Your task to perform on an android device: open app "Paramount+ | Peak Streaming" (install if not already installed) and enter user name: "fostered@yahoo.com" and password: "strong" Image 0: 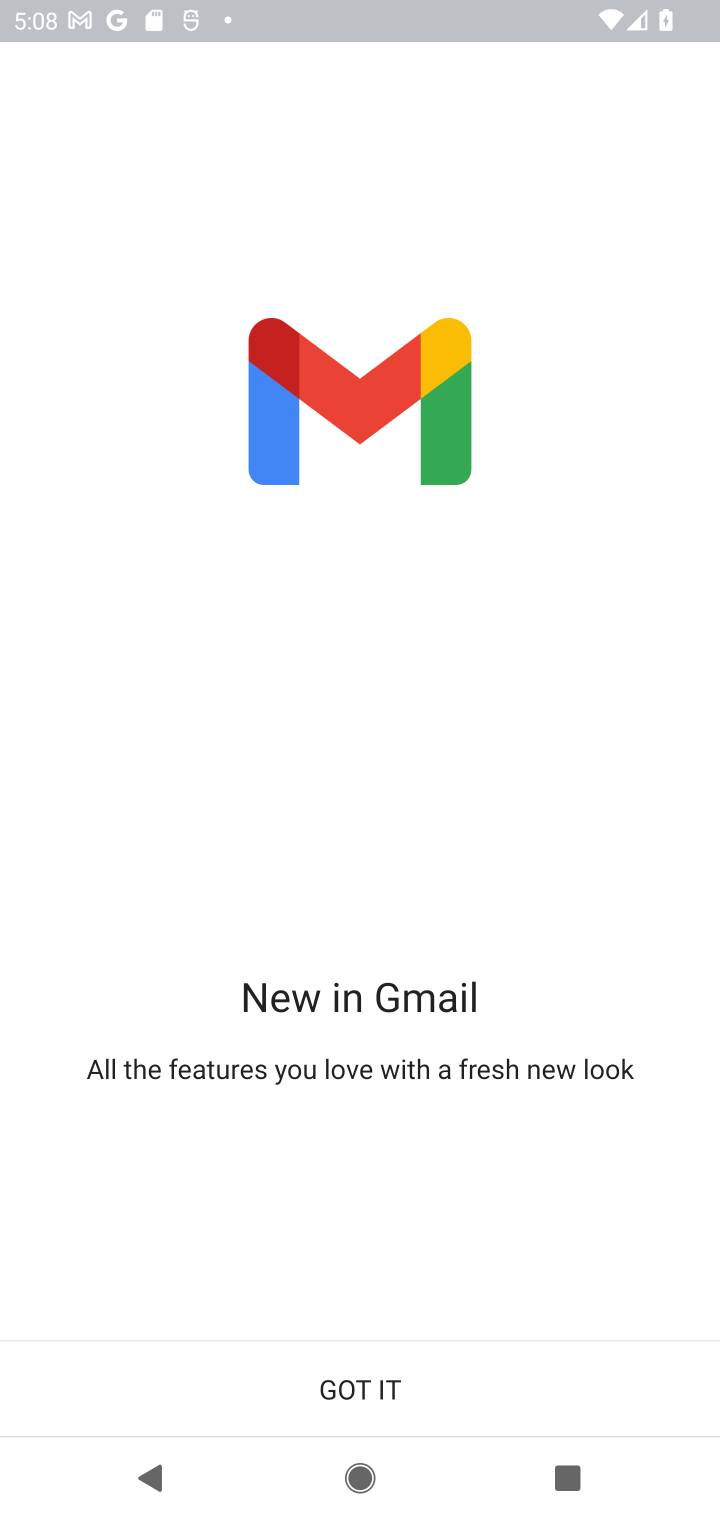
Step 0: press home button
Your task to perform on an android device: open app "Paramount+ | Peak Streaming" (install if not already installed) and enter user name: "fostered@yahoo.com" and password: "strong" Image 1: 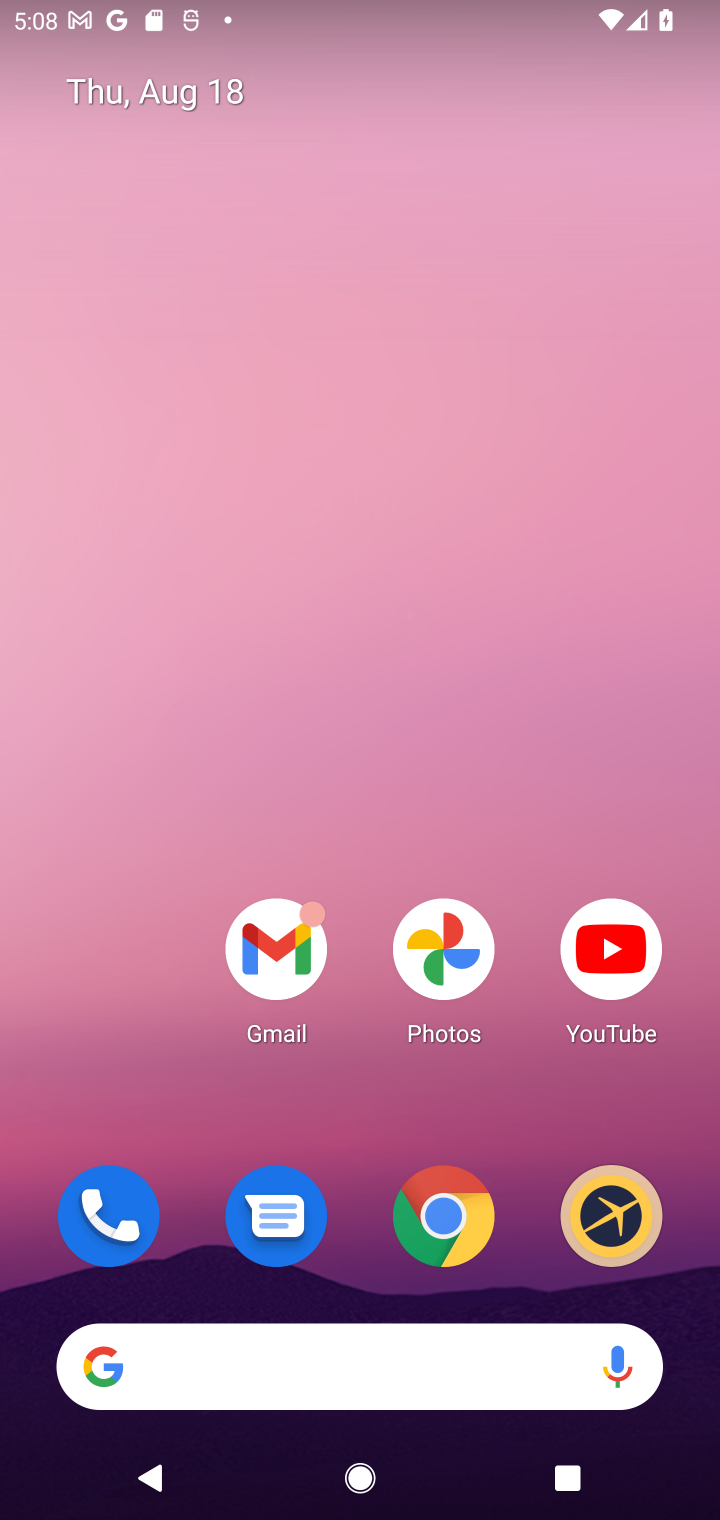
Step 1: drag from (542, 1279) to (505, 219)
Your task to perform on an android device: open app "Paramount+ | Peak Streaming" (install if not already installed) and enter user name: "fostered@yahoo.com" and password: "strong" Image 2: 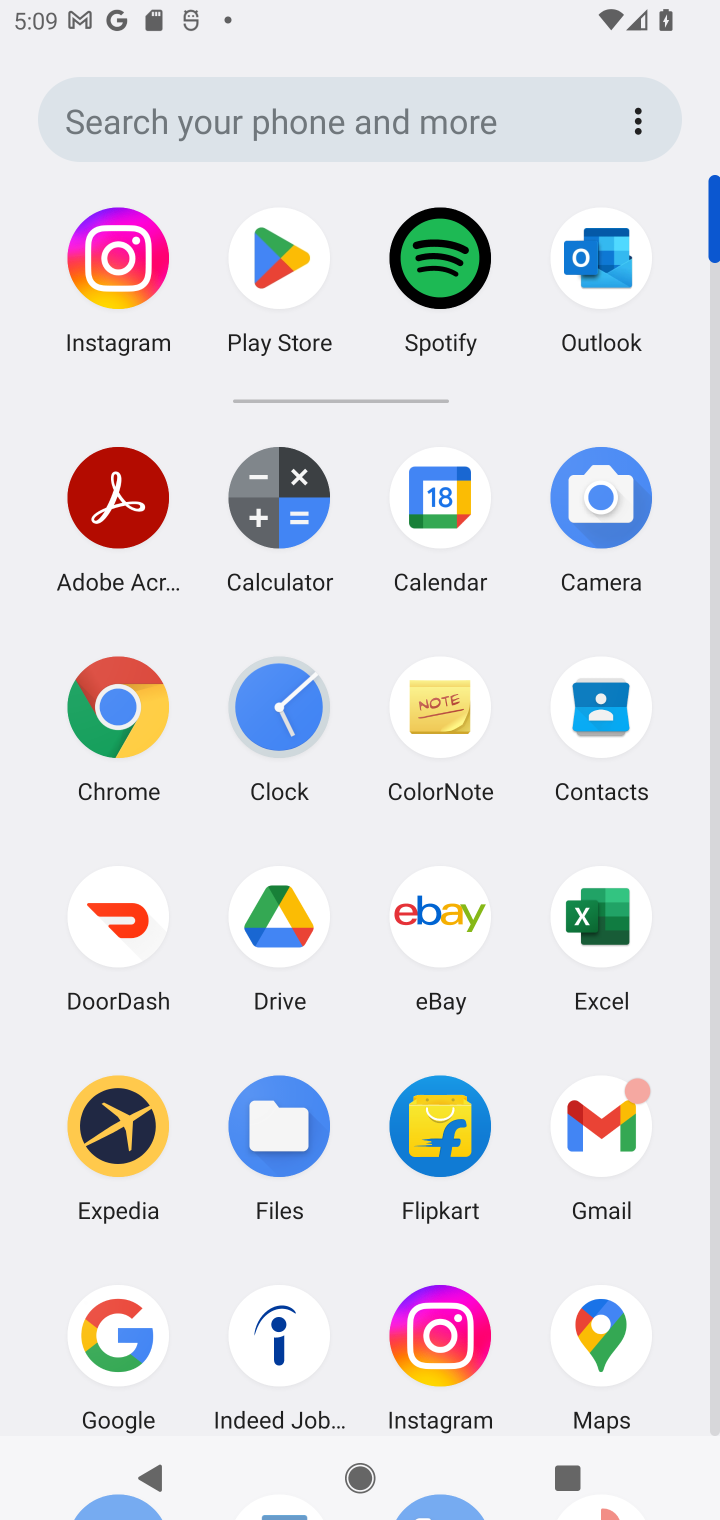
Step 2: drag from (698, 1394) to (686, 471)
Your task to perform on an android device: open app "Paramount+ | Peak Streaming" (install if not already installed) and enter user name: "fostered@yahoo.com" and password: "strong" Image 3: 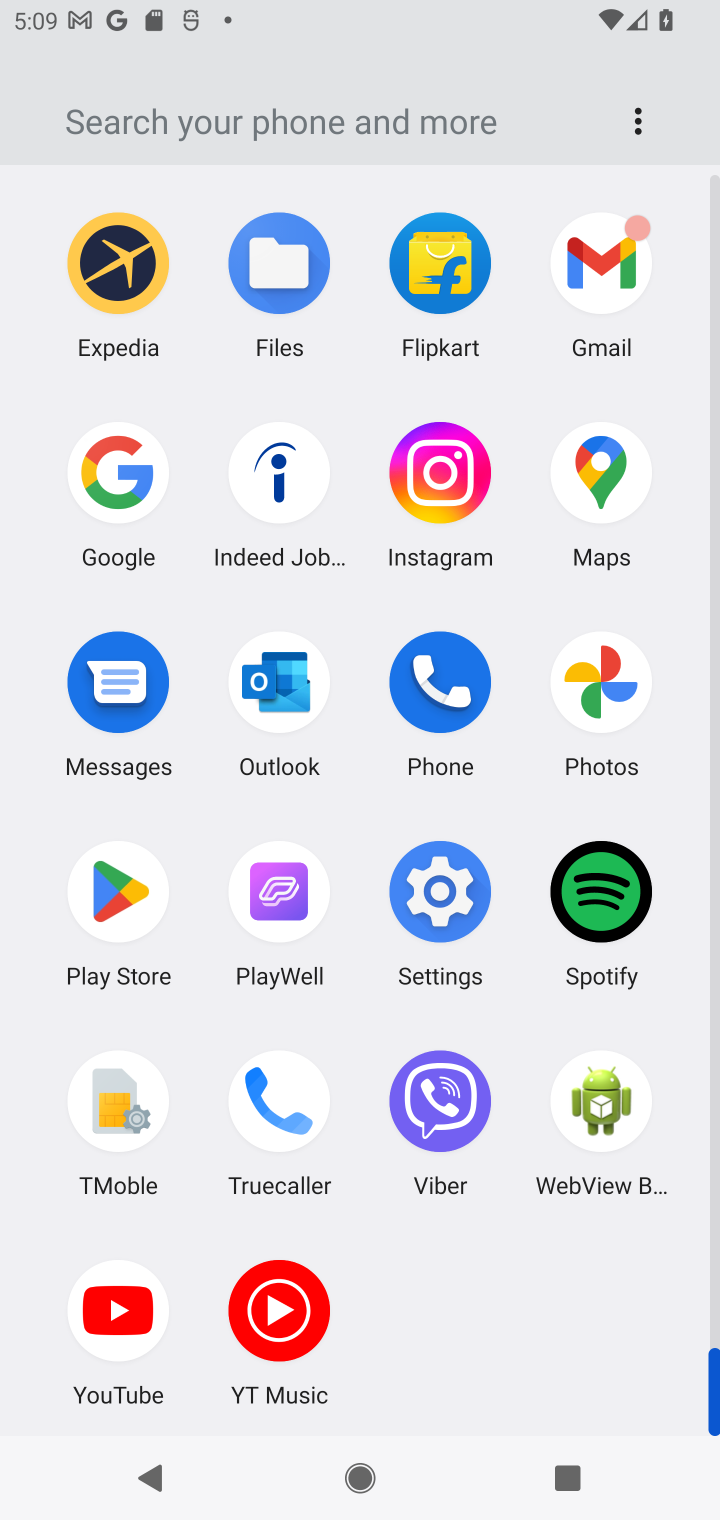
Step 3: click (117, 893)
Your task to perform on an android device: open app "Paramount+ | Peak Streaming" (install if not already installed) and enter user name: "fostered@yahoo.com" and password: "strong" Image 4: 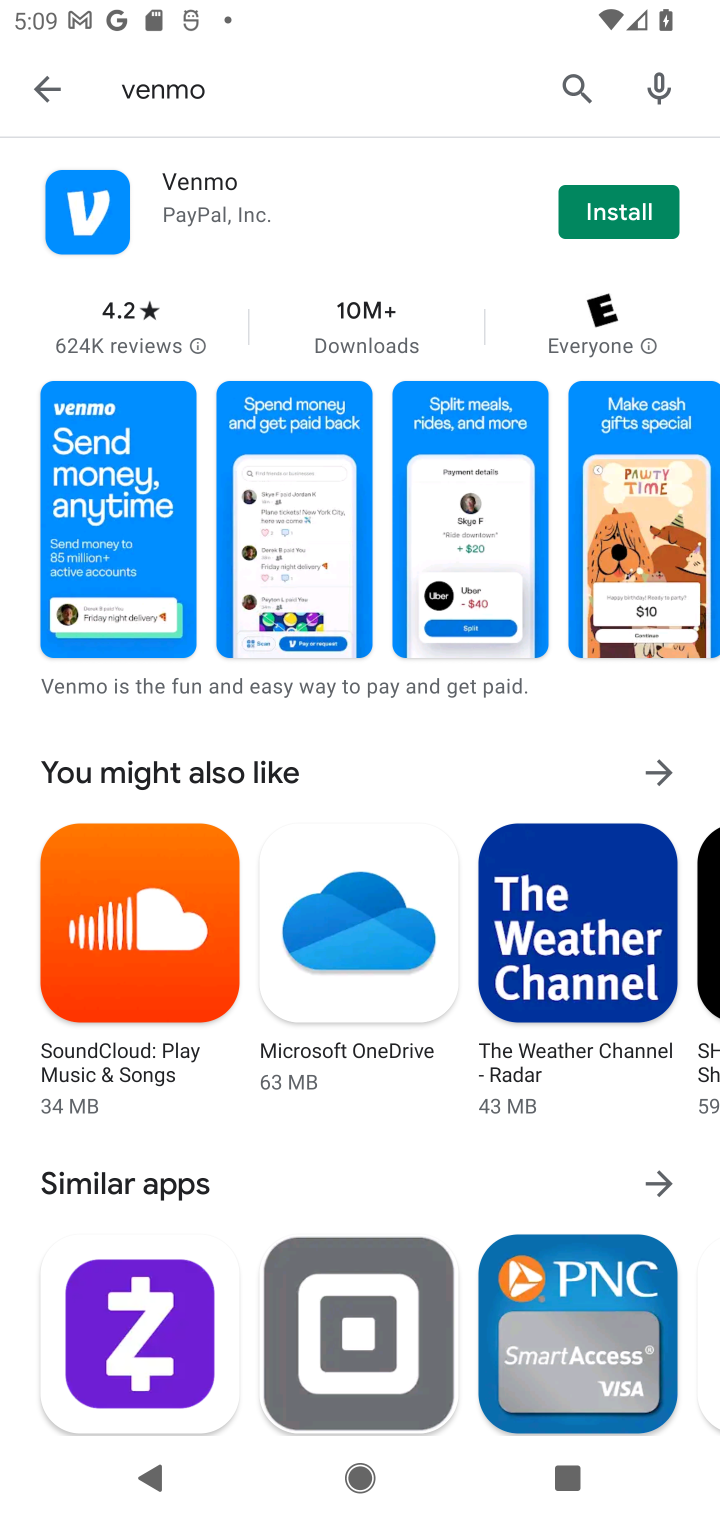
Step 4: click (581, 79)
Your task to perform on an android device: open app "Paramount+ | Peak Streaming" (install if not already installed) and enter user name: "fostered@yahoo.com" and password: "strong" Image 5: 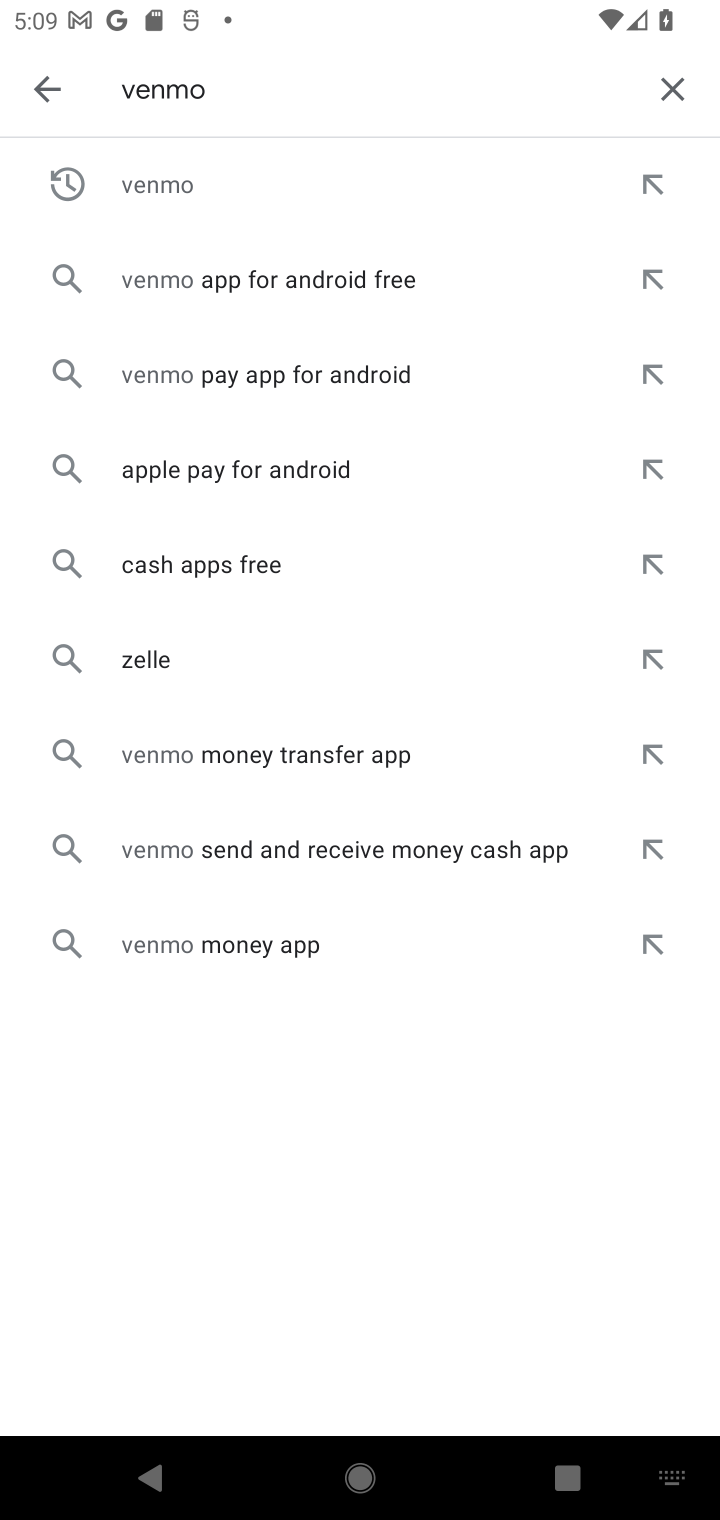
Step 5: click (678, 90)
Your task to perform on an android device: open app "Paramount+ | Peak Streaming" (install if not already installed) and enter user name: "fostered@yahoo.com" and password: "strong" Image 6: 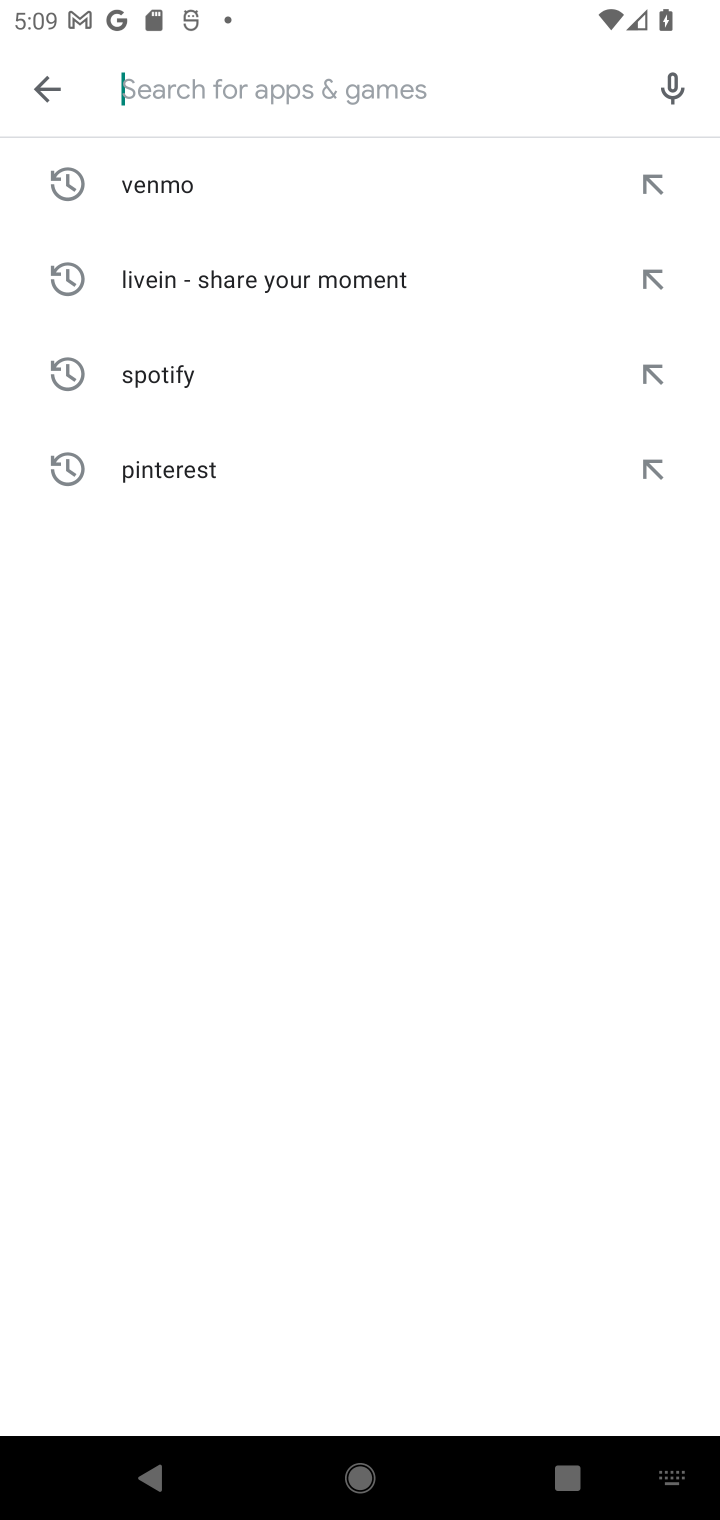
Step 6: type "Paramount+ | Peak Streaming"
Your task to perform on an android device: open app "Paramount+ | Peak Streaming" (install if not already installed) and enter user name: "fostered@yahoo.com" and password: "strong" Image 7: 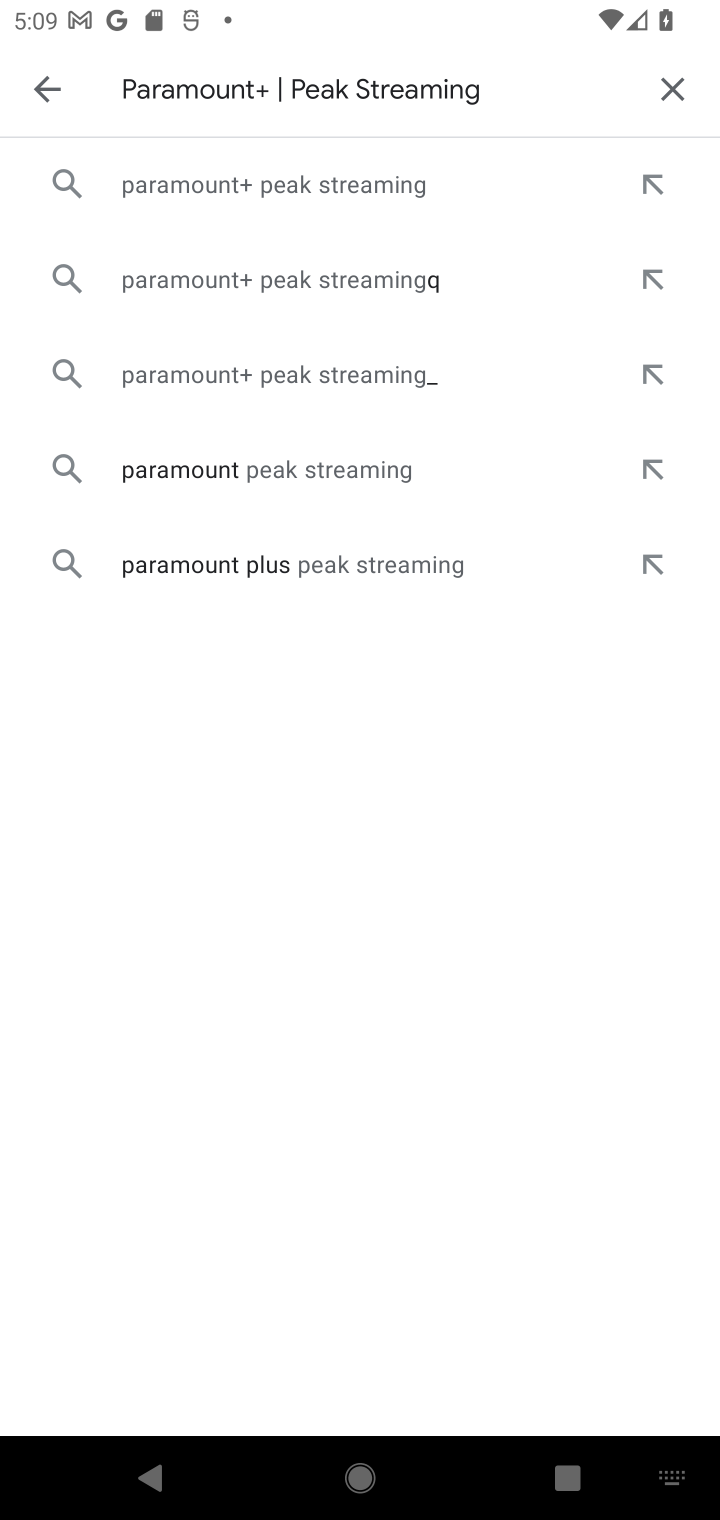
Step 7: click (203, 173)
Your task to perform on an android device: open app "Paramount+ | Peak Streaming" (install if not already installed) and enter user name: "fostered@yahoo.com" and password: "strong" Image 8: 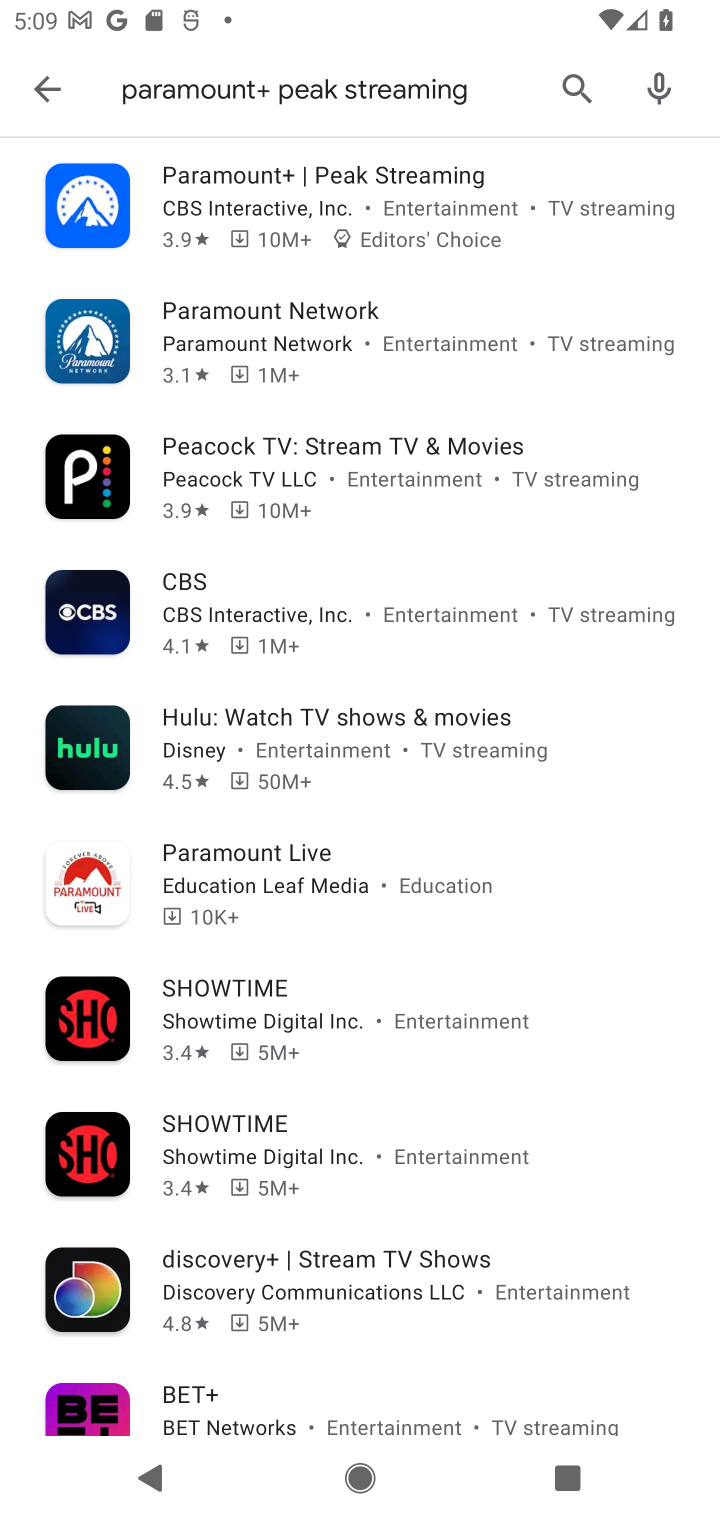
Step 8: click (281, 196)
Your task to perform on an android device: open app "Paramount+ | Peak Streaming" (install if not already installed) and enter user name: "fostered@yahoo.com" and password: "strong" Image 9: 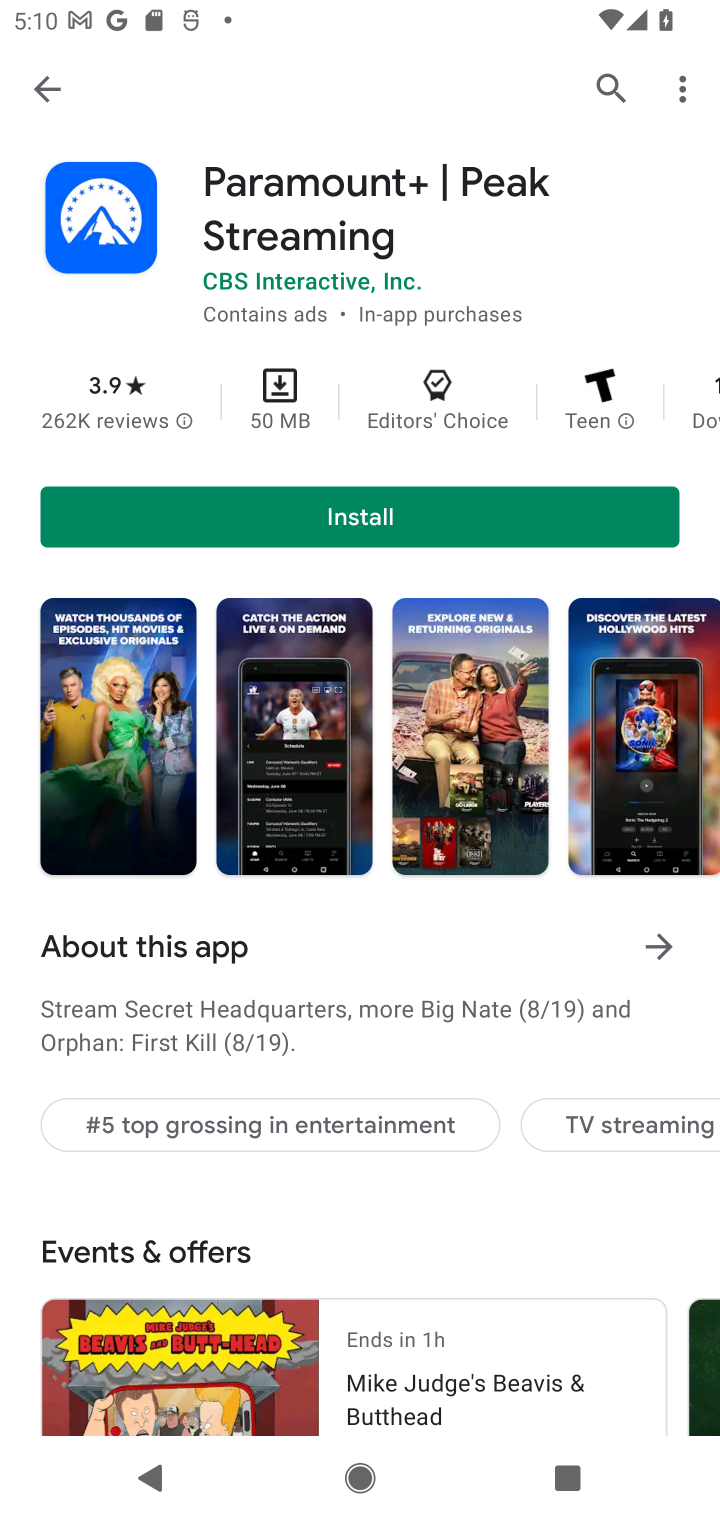
Step 9: click (358, 512)
Your task to perform on an android device: open app "Paramount+ | Peak Streaming" (install if not already installed) and enter user name: "fostered@yahoo.com" and password: "strong" Image 10: 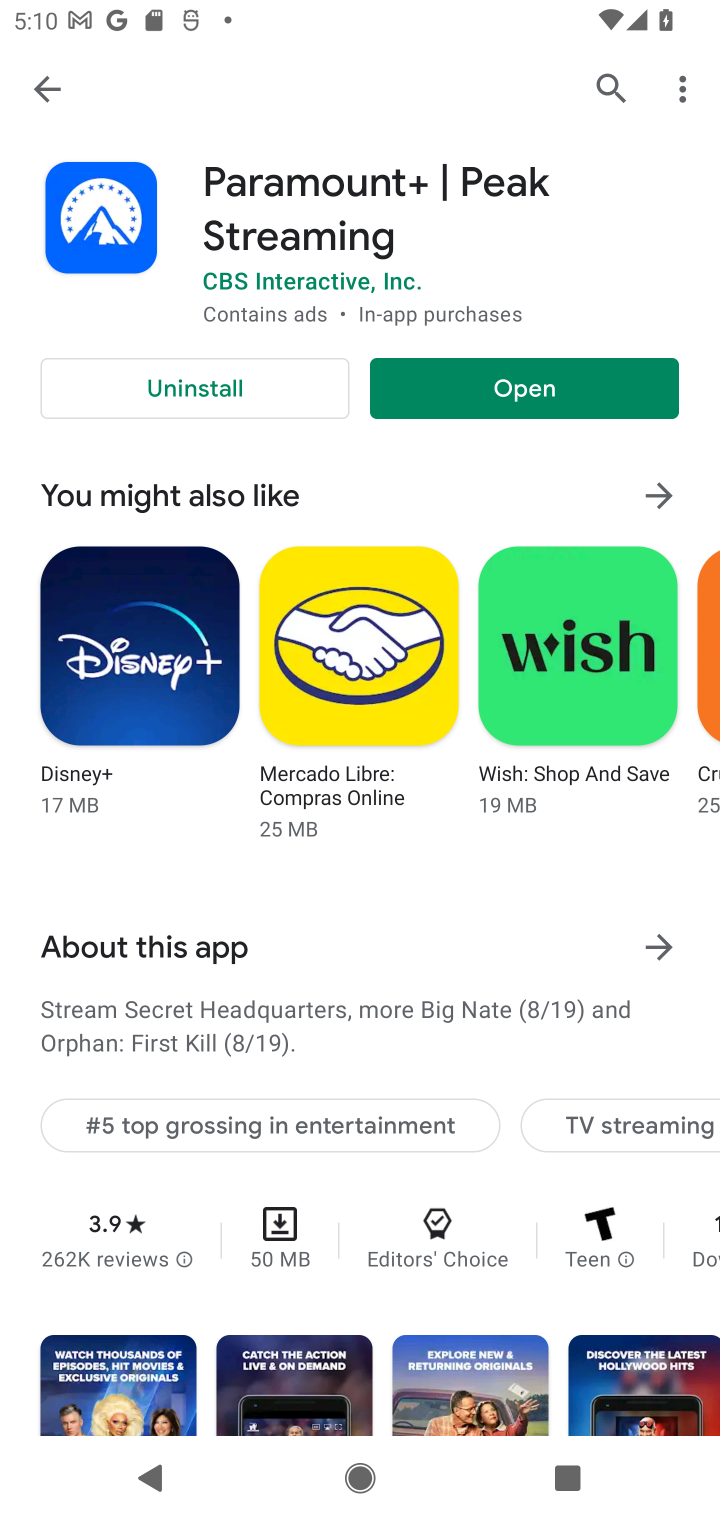
Step 10: click (517, 382)
Your task to perform on an android device: open app "Paramount+ | Peak Streaming" (install if not already installed) and enter user name: "fostered@yahoo.com" and password: "strong" Image 11: 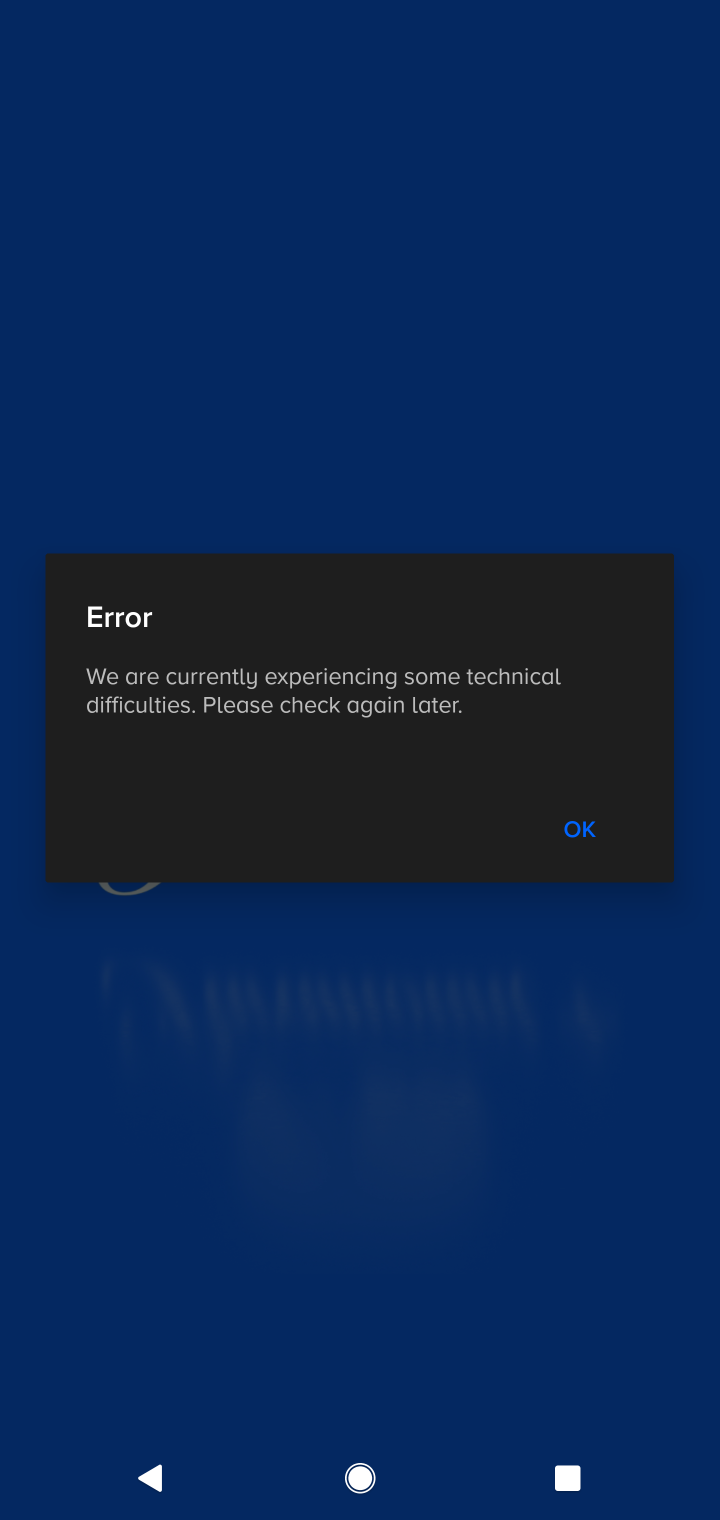
Step 11: click (572, 829)
Your task to perform on an android device: open app "Paramount+ | Peak Streaming" (install if not already installed) and enter user name: "fostered@yahoo.com" and password: "strong" Image 12: 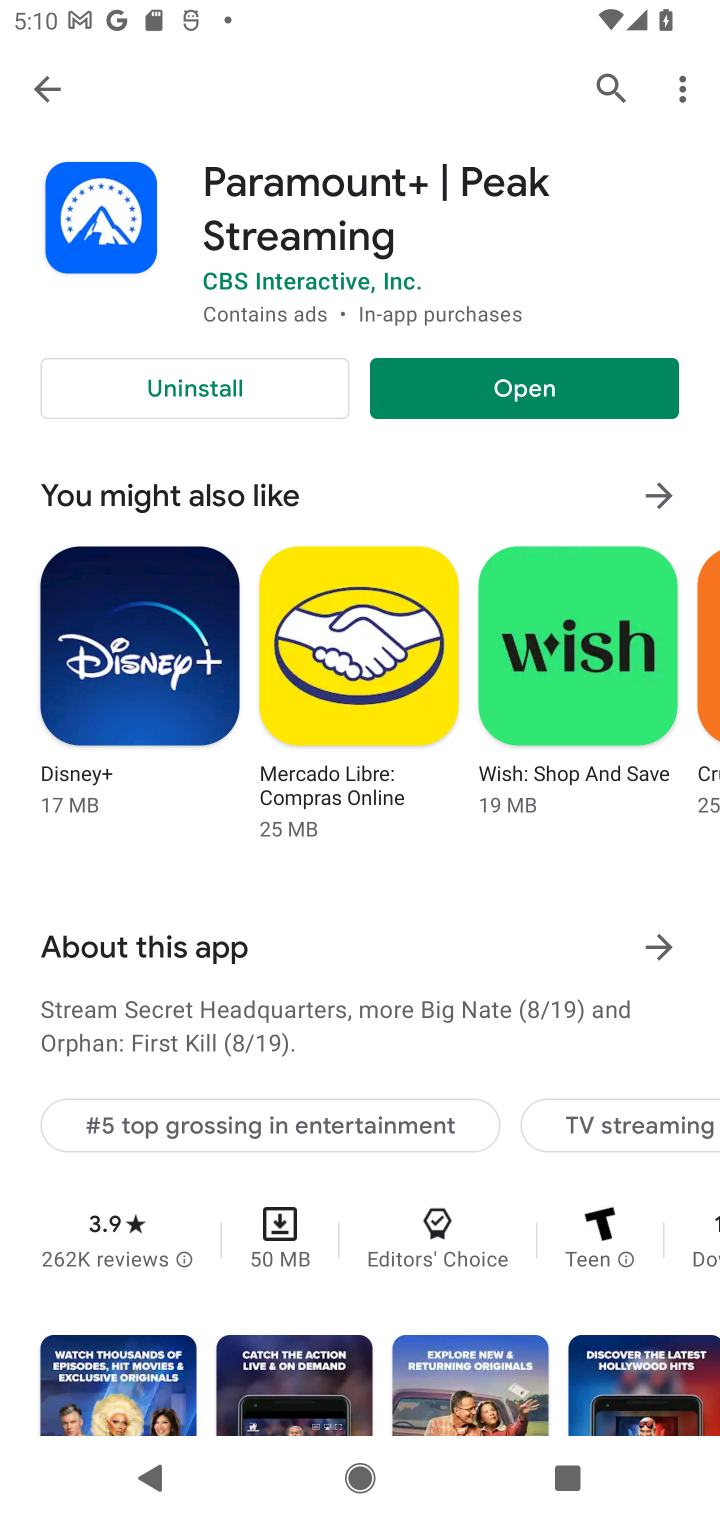
Step 12: click (534, 391)
Your task to perform on an android device: open app "Paramount+ | Peak Streaming" (install if not already installed) and enter user name: "fostered@yahoo.com" and password: "strong" Image 13: 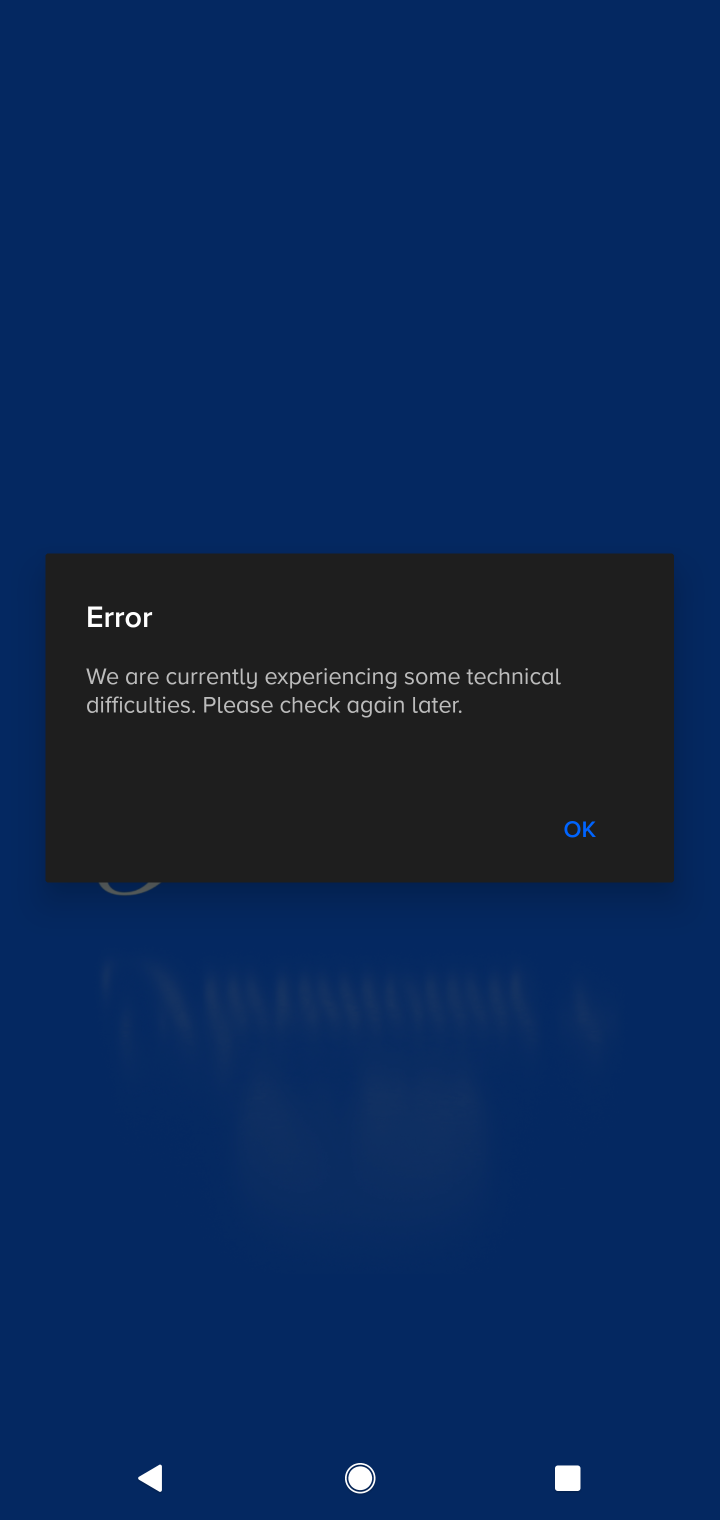
Step 13: click (575, 830)
Your task to perform on an android device: open app "Paramount+ | Peak Streaming" (install if not already installed) and enter user name: "fostered@yahoo.com" and password: "strong" Image 14: 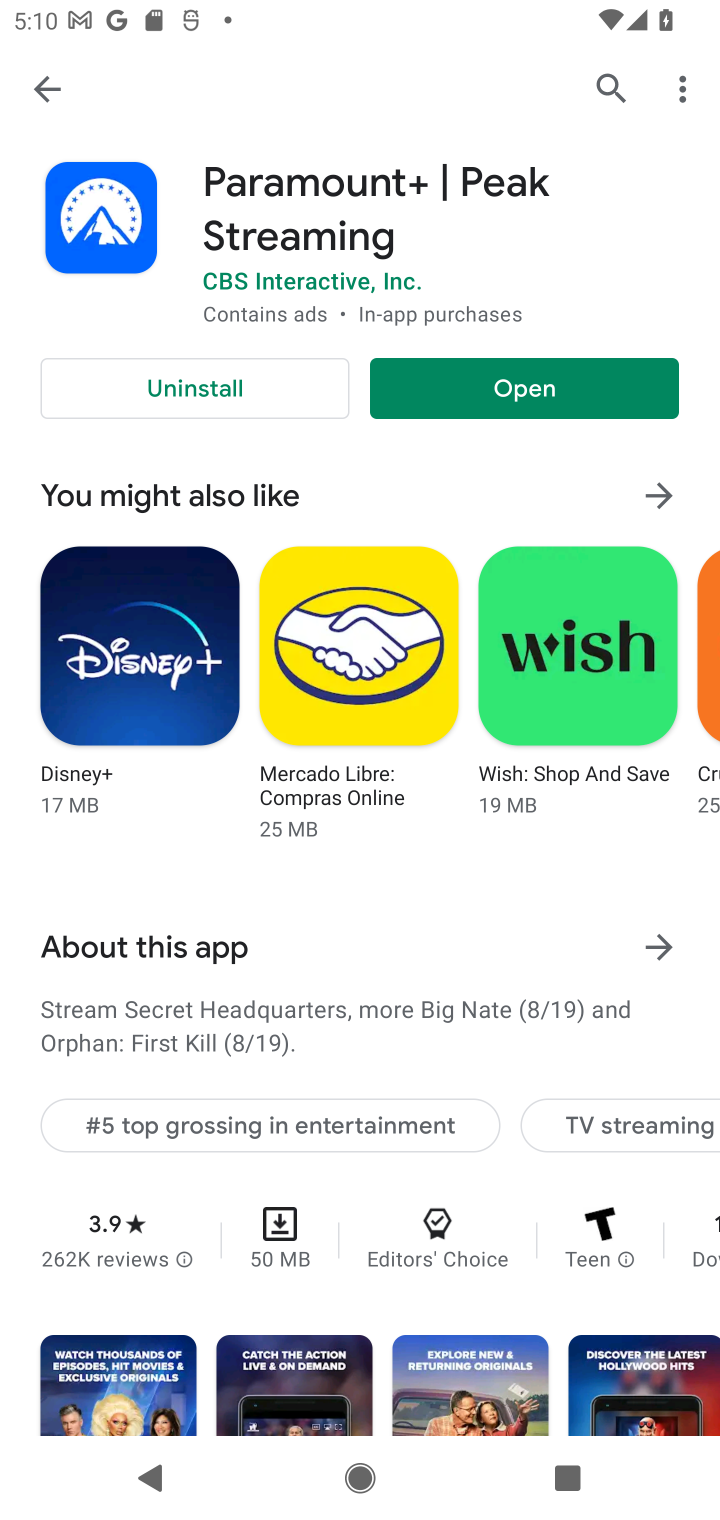
Step 14: task complete